Your task to perform on an android device: allow cookies in the chrome app Image 0: 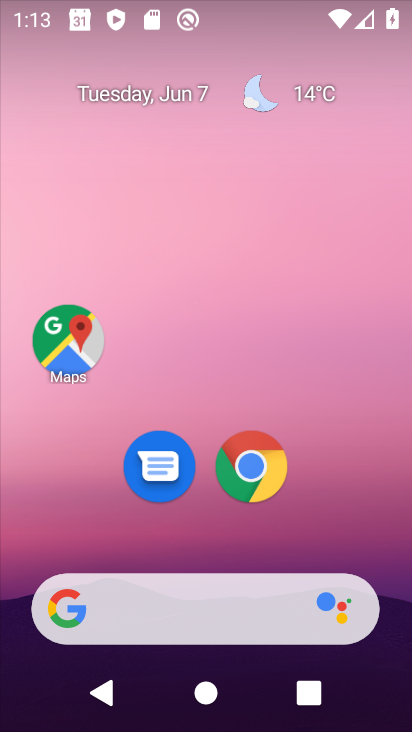
Step 0: click (235, 471)
Your task to perform on an android device: allow cookies in the chrome app Image 1: 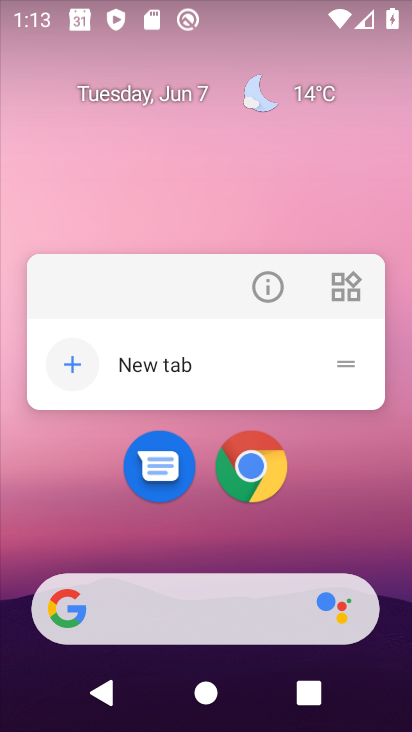
Step 1: click (246, 459)
Your task to perform on an android device: allow cookies in the chrome app Image 2: 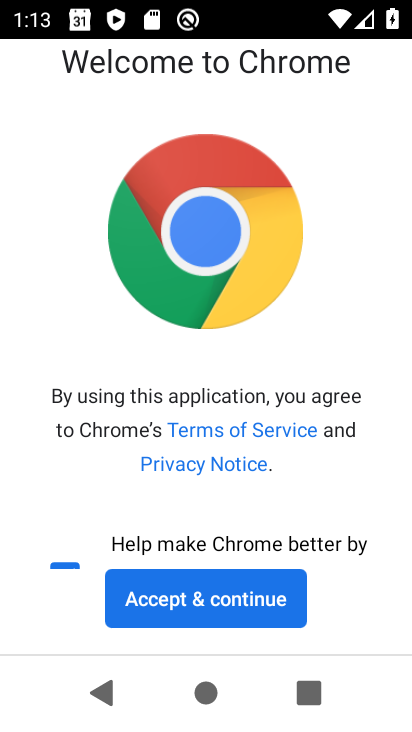
Step 2: click (234, 589)
Your task to perform on an android device: allow cookies in the chrome app Image 3: 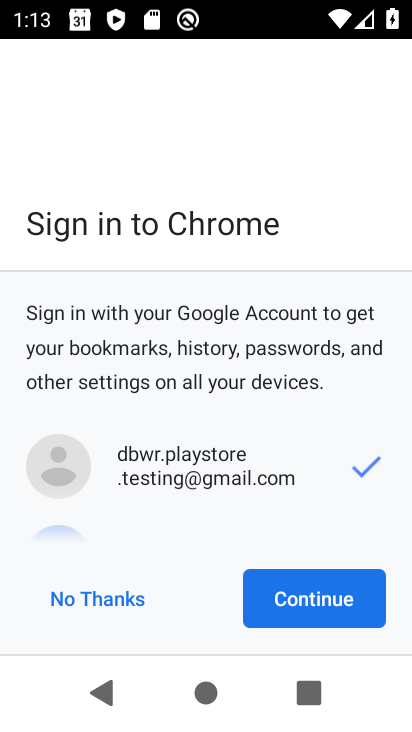
Step 3: click (326, 601)
Your task to perform on an android device: allow cookies in the chrome app Image 4: 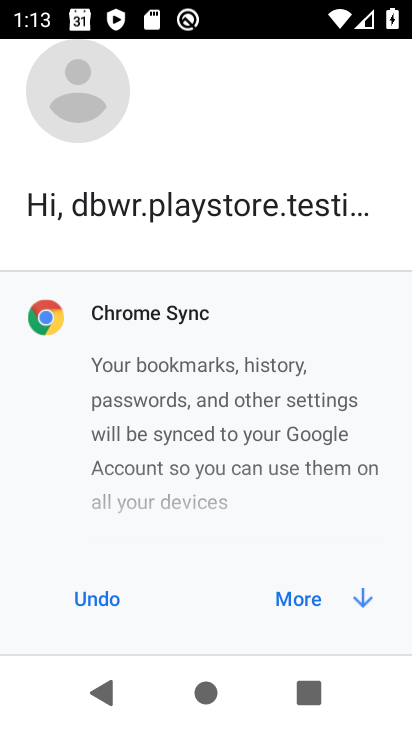
Step 4: click (333, 601)
Your task to perform on an android device: allow cookies in the chrome app Image 5: 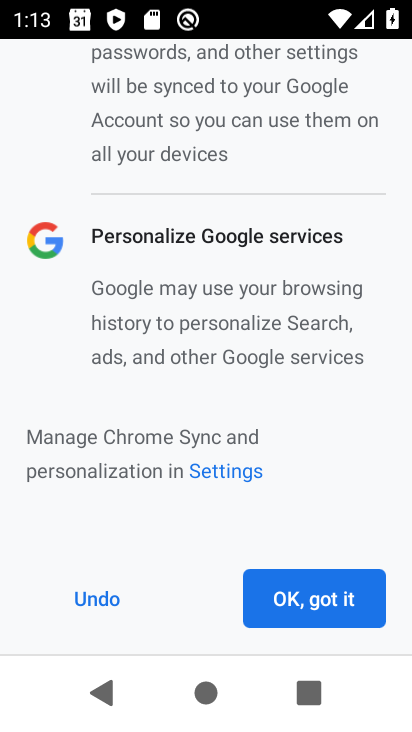
Step 5: click (325, 597)
Your task to perform on an android device: allow cookies in the chrome app Image 6: 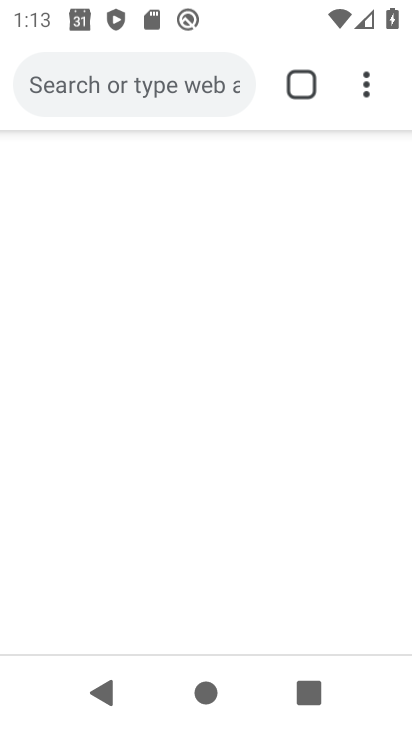
Step 6: click (325, 597)
Your task to perform on an android device: allow cookies in the chrome app Image 7: 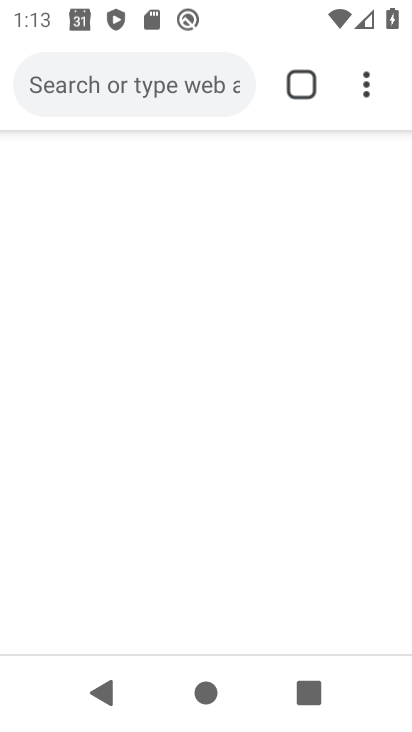
Step 7: drag from (360, 78) to (92, 513)
Your task to perform on an android device: allow cookies in the chrome app Image 8: 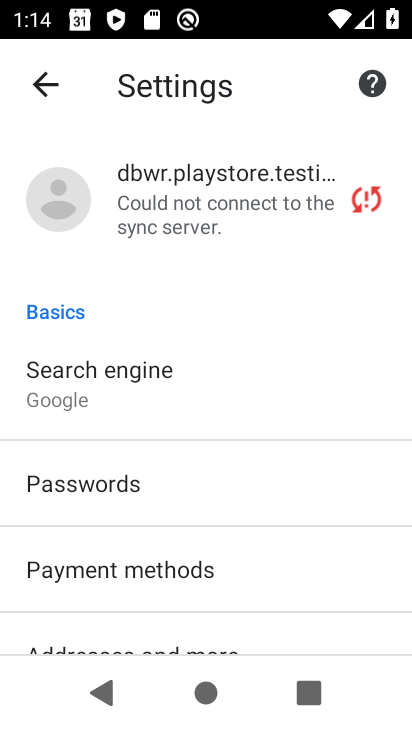
Step 8: drag from (190, 614) to (270, 122)
Your task to perform on an android device: allow cookies in the chrome app Image 9: 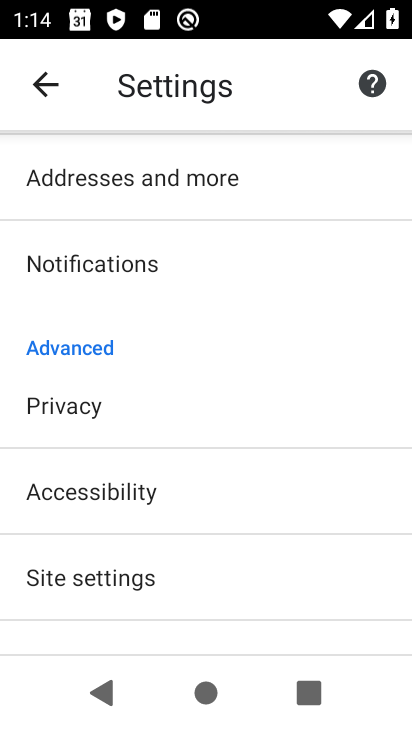
Step 9: click (124, 583)
Your task to perform on an android device: allow cookies in the chrome app Image 10: 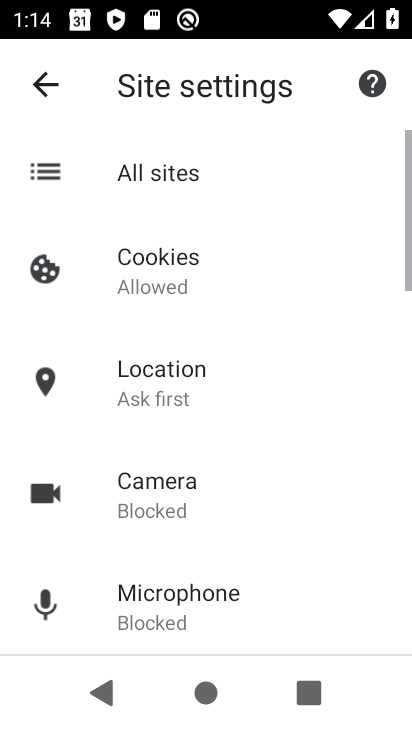
Step 10: click (160, 256)
Your task to perform on an android device: allow cookies in the chrome app Image 11: 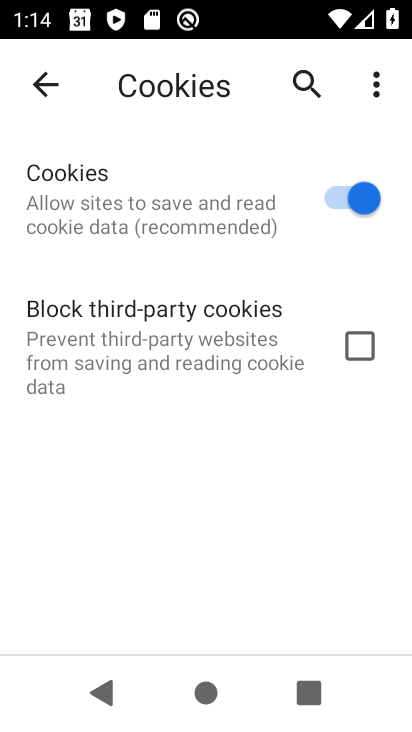
Step 11: task complete